Your task to perform on an android device: open app "Expedia: Hotels, Flights & Car" (install if not already installed) Image 0: 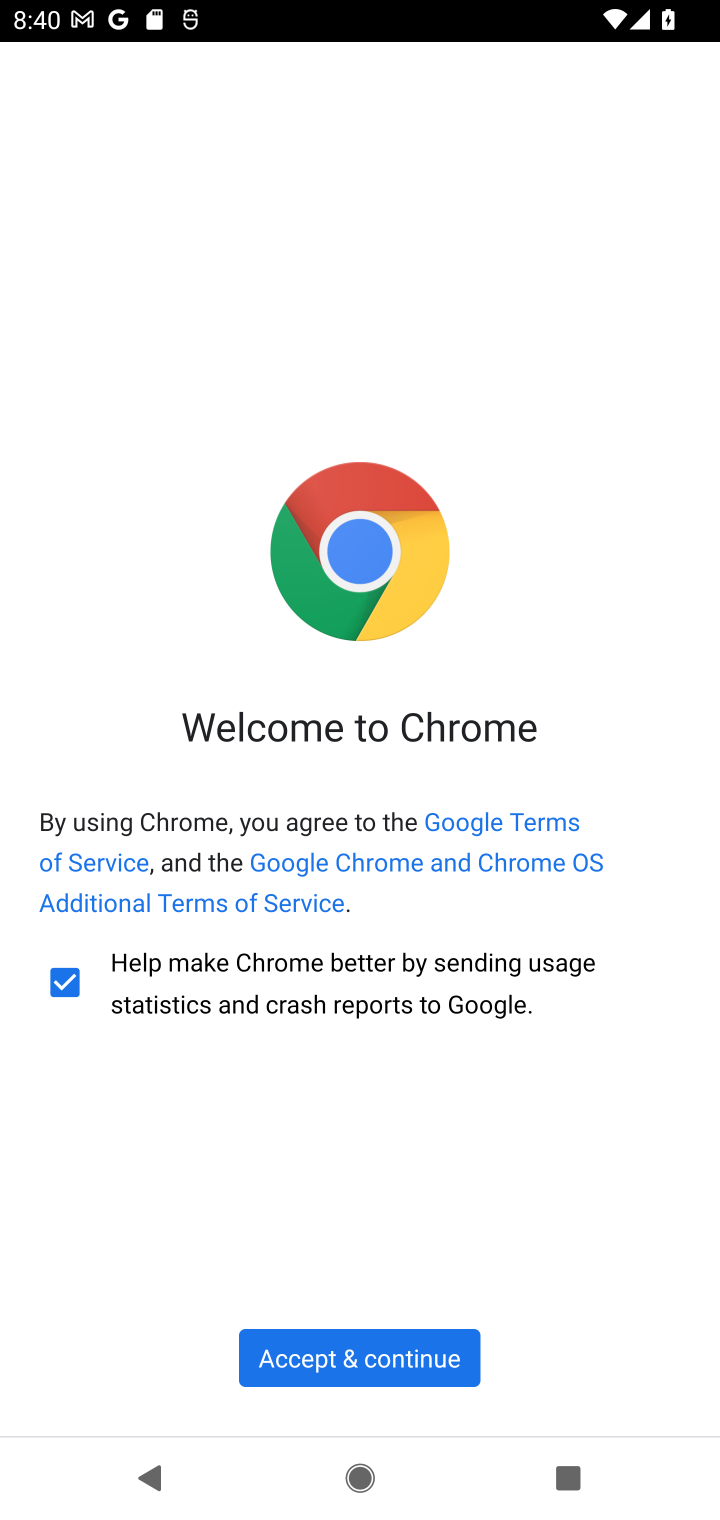
Step 0: press home button
Your task to perform on an android device: open app "Expedia: Hotels, Flights & Car" (install if not already installed) Image 1: 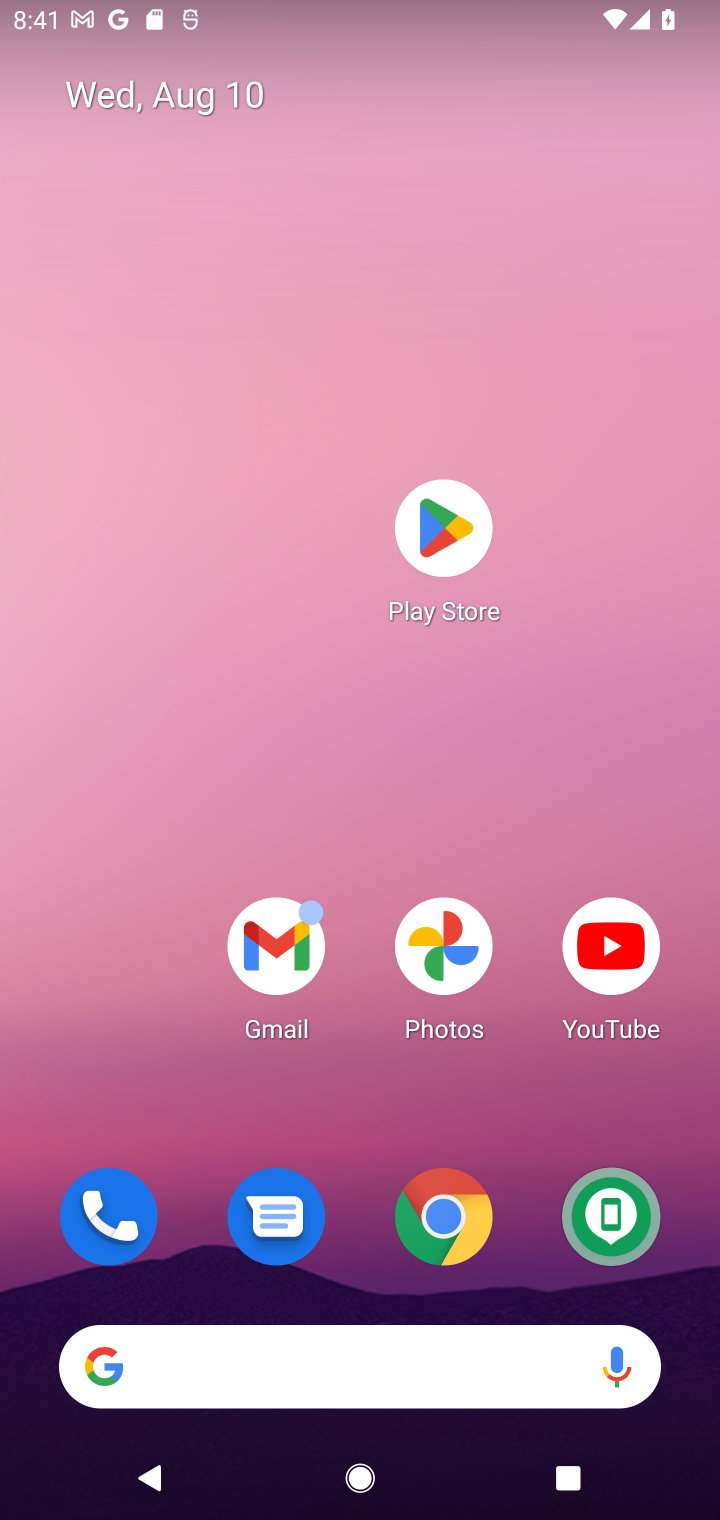
Step 1: click (448, 533)
Your task to perform on an android device: open app "Expedia: Hotels, Flights & Car" (install if not already installed) Image 2: 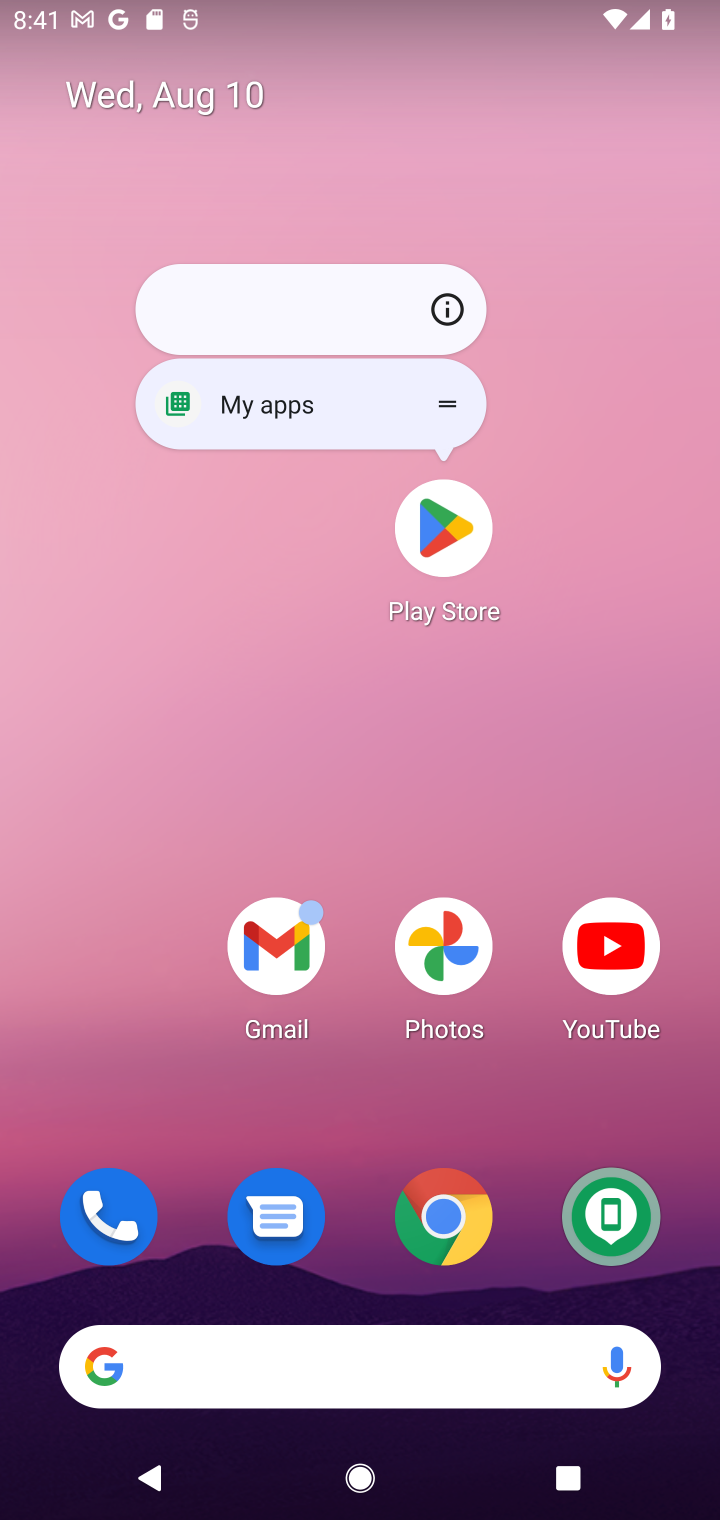
Step 2: click (443, 537)
Your task to perform on an android device: open app "Expedia: Hotels, Flights & Car" (install if not already installed) Image 3: 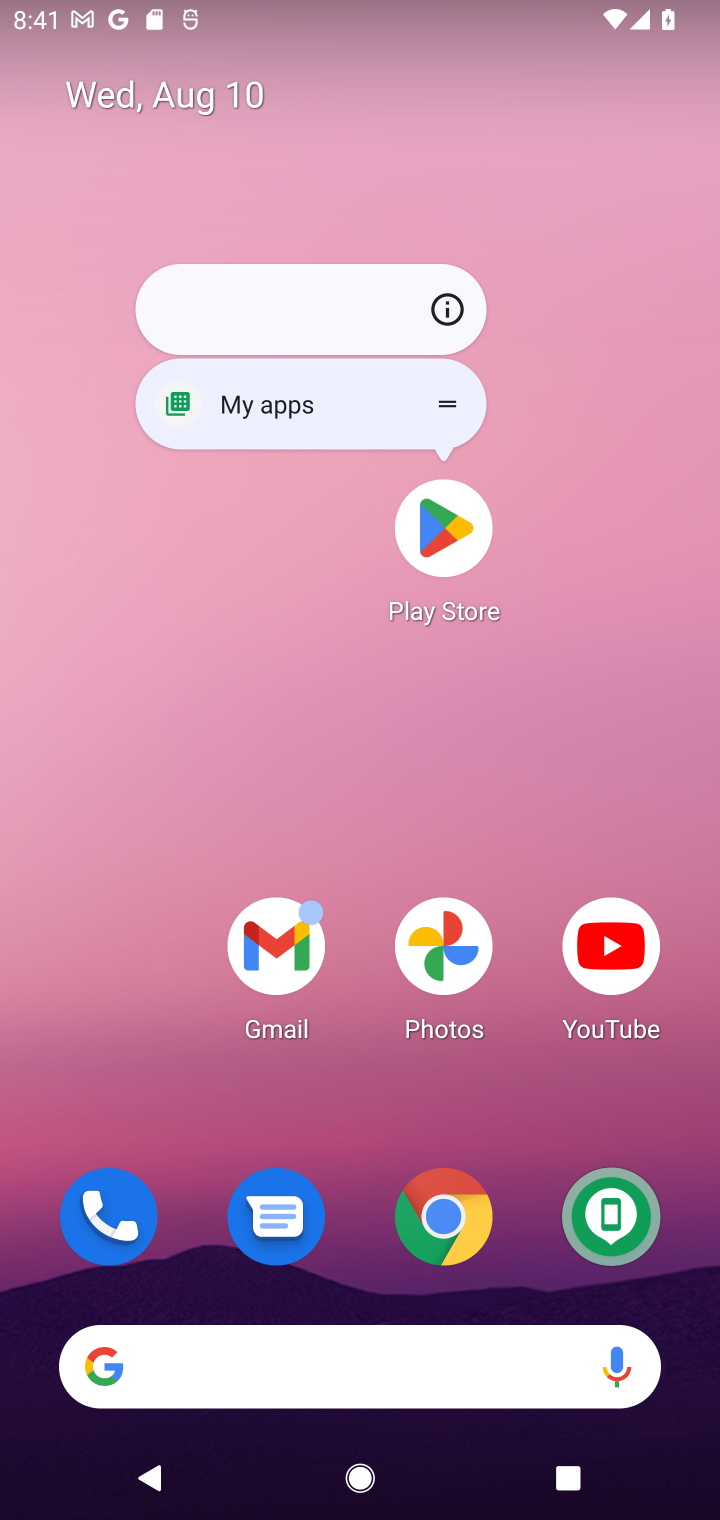
Step 3: click (443, 540)
Your task to perform on an android device: open app "Expedia: Hotels, Flights & Car" (install if not already installed) Image 4: 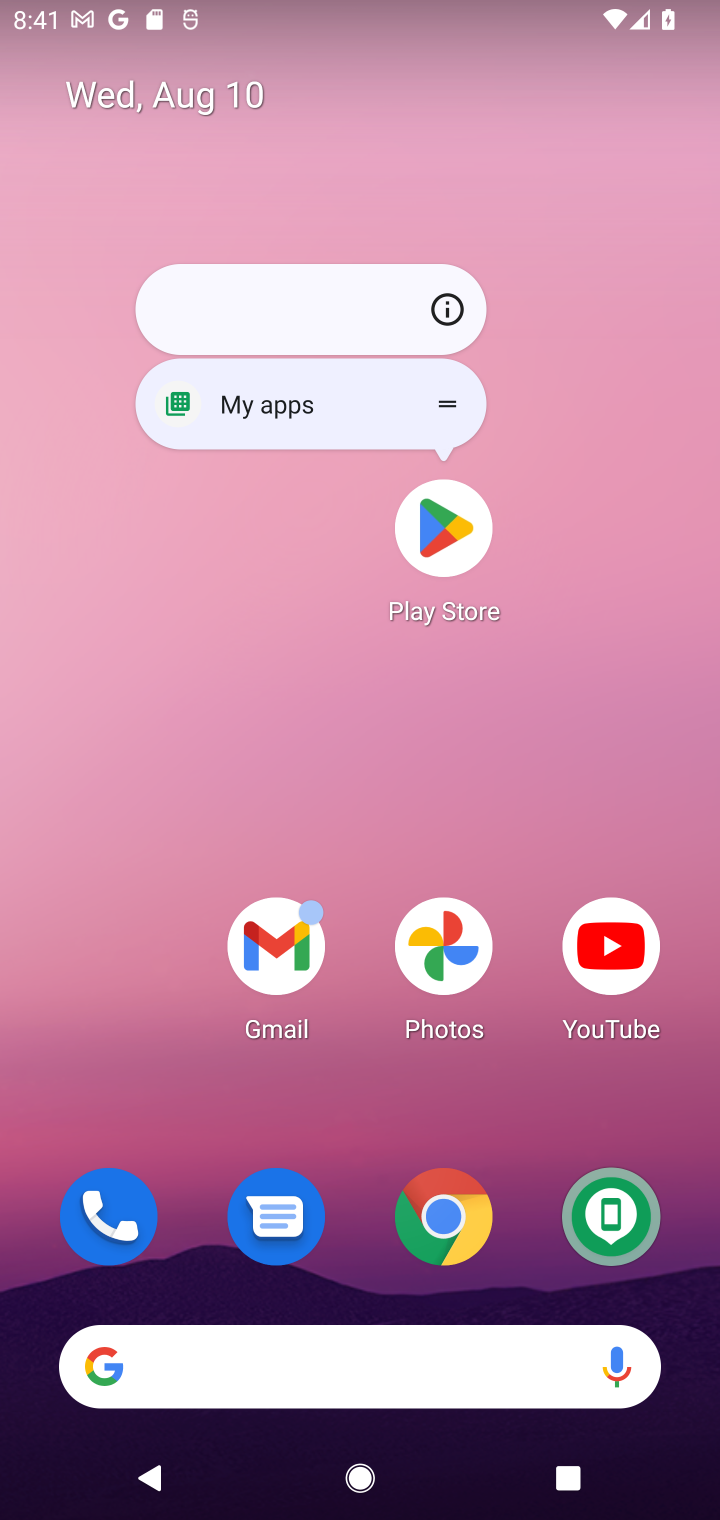
Step 4: click (443, 537)
Your task to perform on an android device: open app "Expedia: Hotels, Flights & Car" (install if not already installed) Image 5: 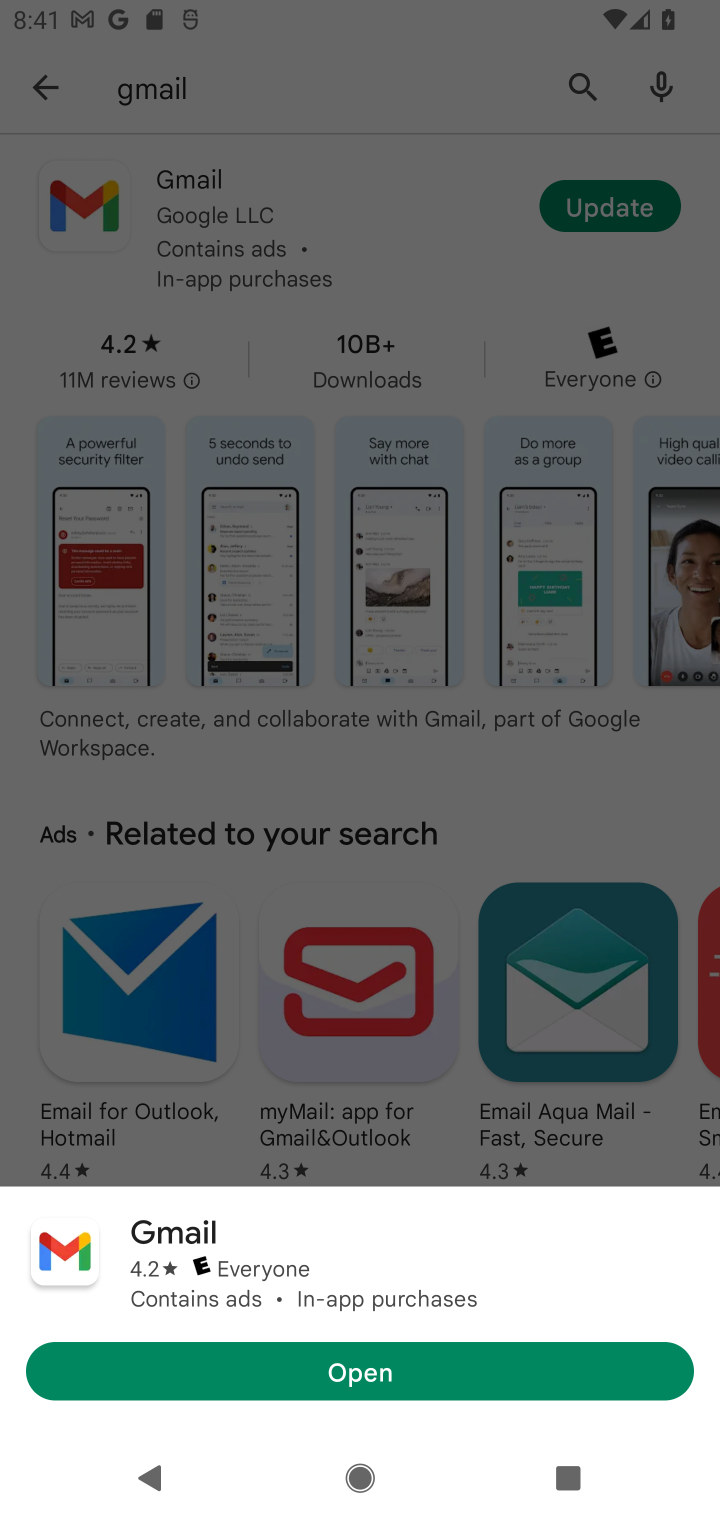
Step 5: click (571, 90)
Your task to perform on an android device: open app "Expedia: Hotels, Flights & Car" (install if not already installed) Image 6: 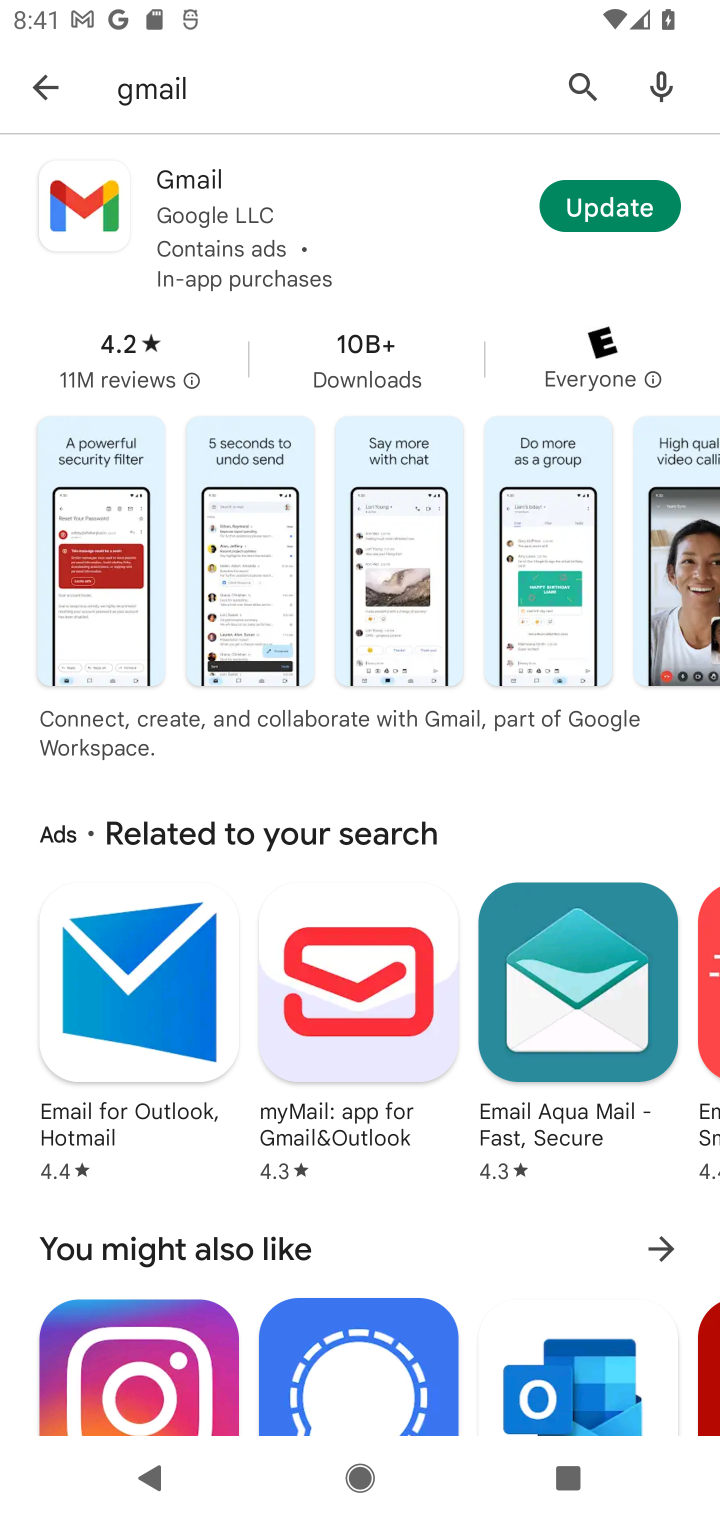
Step 6: click (584, 84)
Your task to perform on an android device: open app "Expedia: Hotels, Flights & Car" (install if not already installed) Image 7: 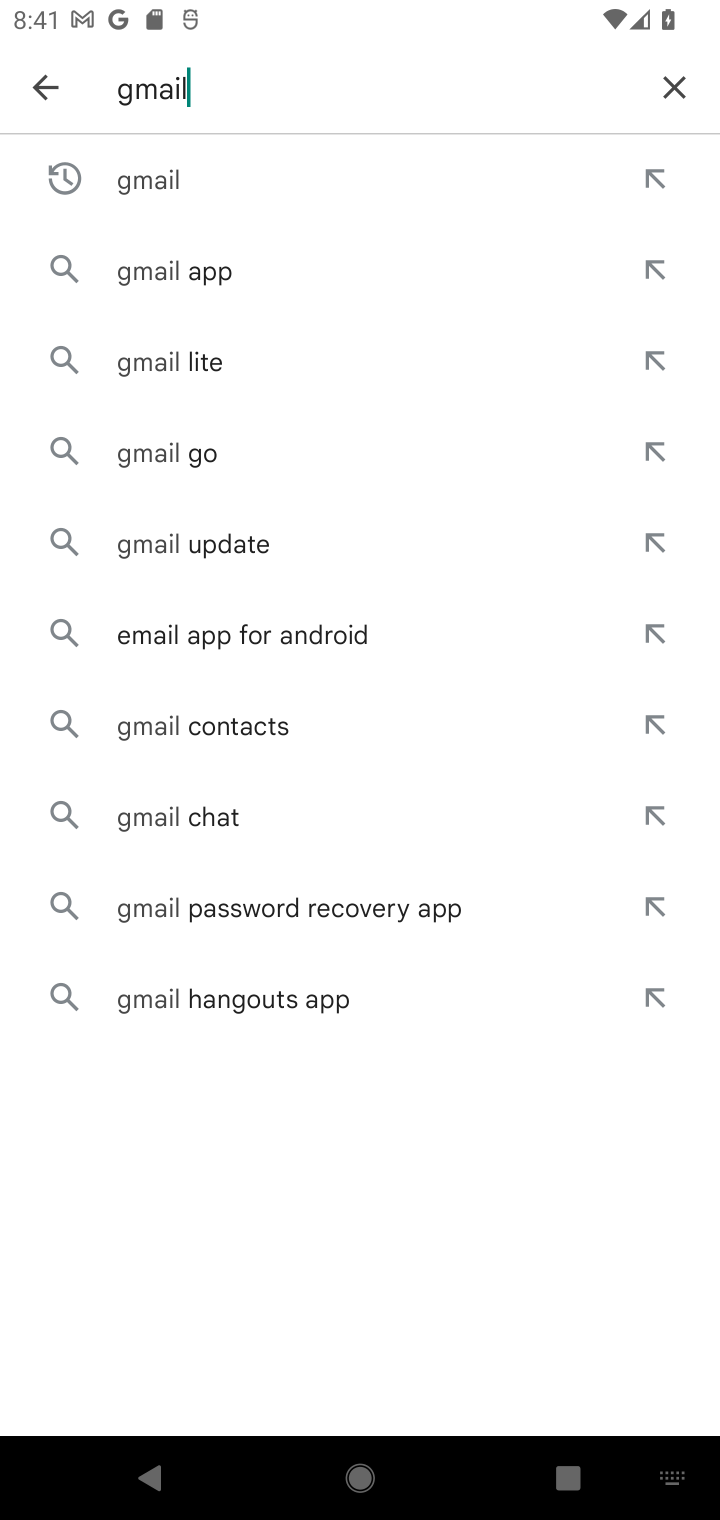
Step 7: click (663, 91)
Your task to perform on an android device: open app "Expedia: Hotels, Flights & Car" (install if not already installed) Image 8: 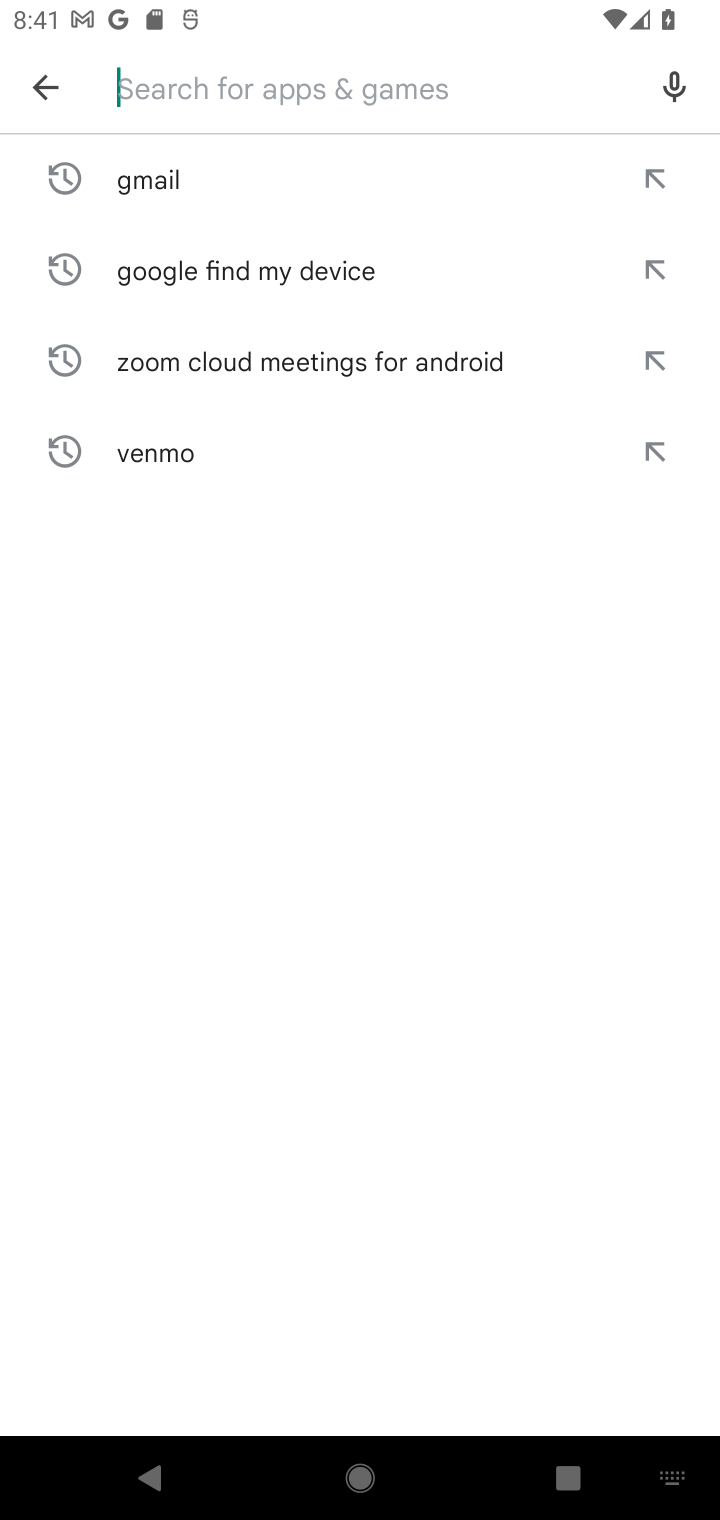
Step 8: type "Expedia: Hotels, Flights & Car"
Your task to perform on an android device: open app "Expedia: Hotels, Flights & Car" (install if not already installed) Image 9: 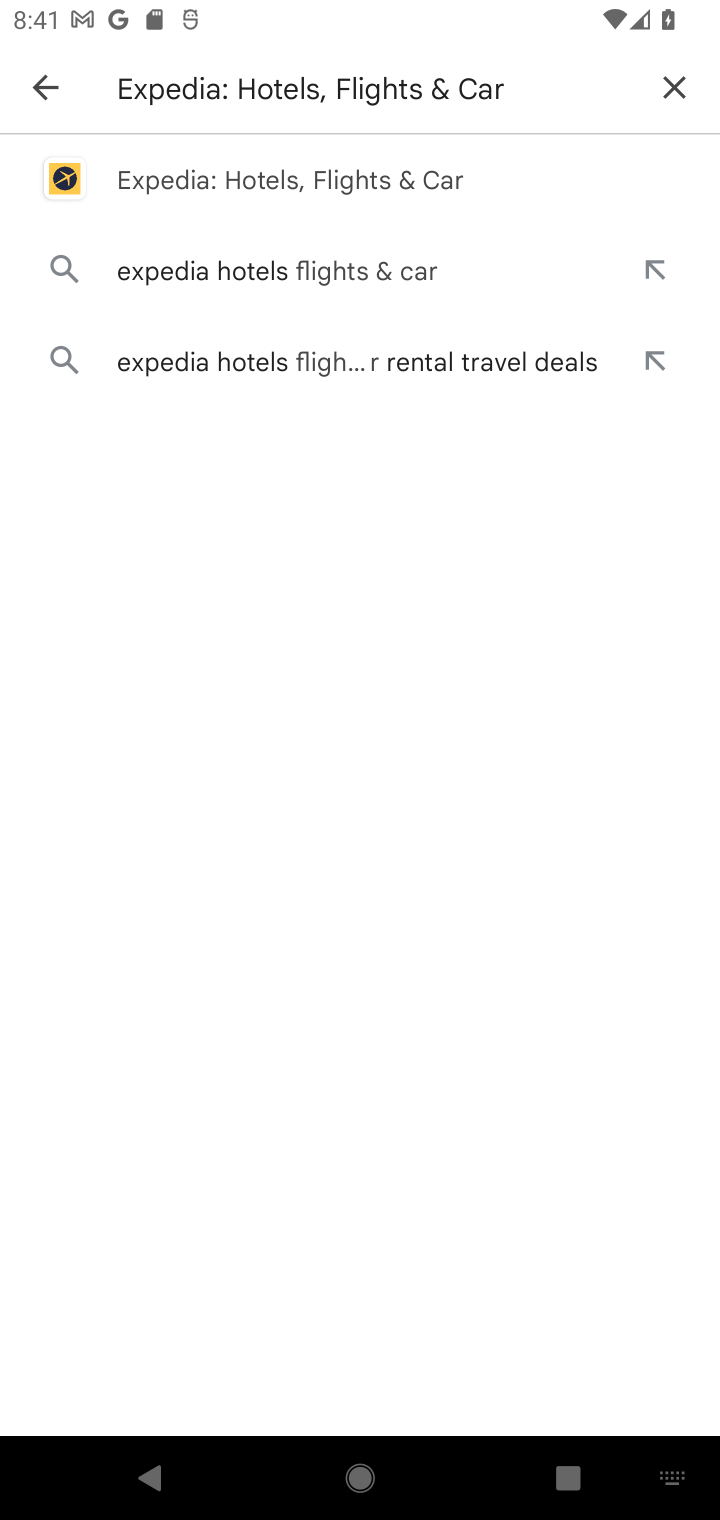
Step 9: click (287, 178)
Your task to perform on an android device: open app "Expedia: Hotels, Flights & Car" (install if not already installed) Image 10: 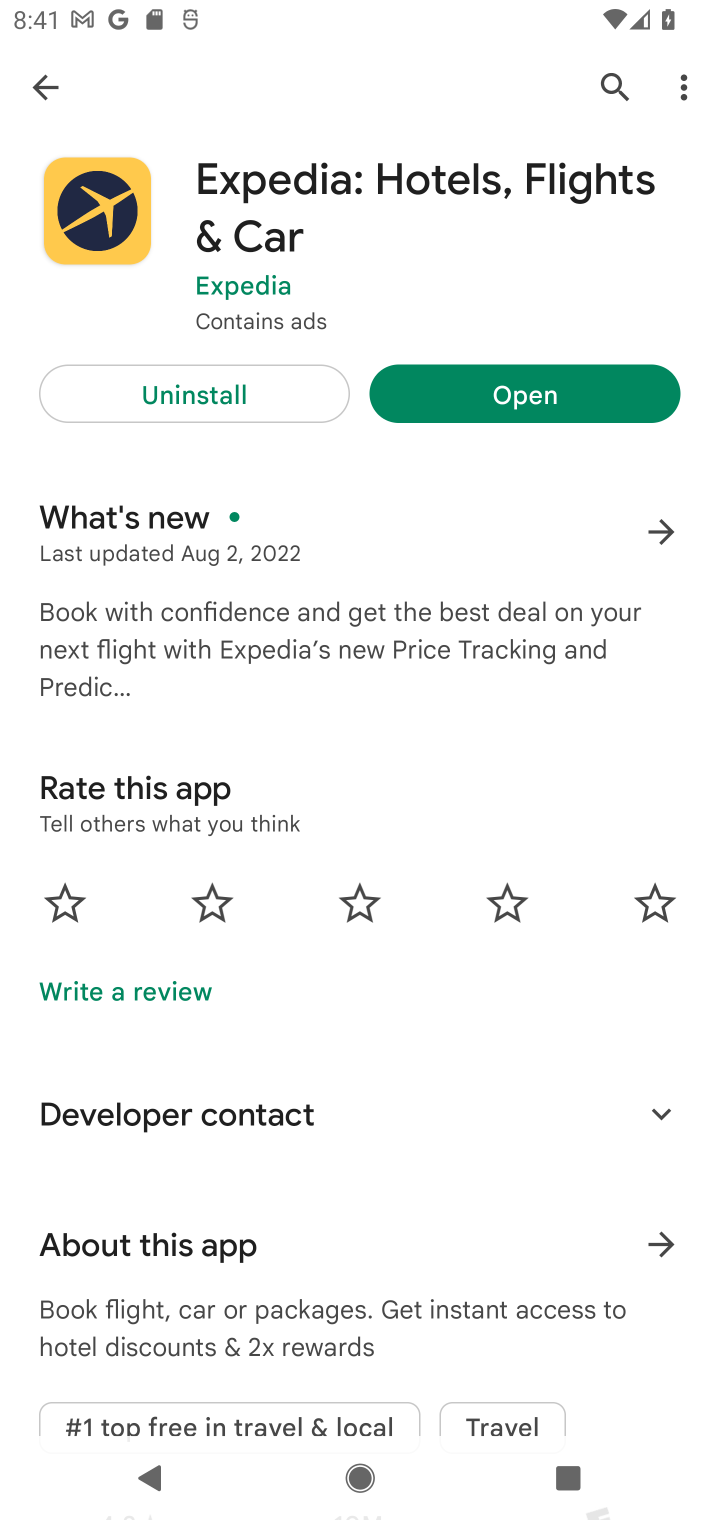
Step 10: click (573, 393)
Your task to perform on an android device: open app "Expedia: Hotels, Flights & Car" (install if not already installed) Image 11: 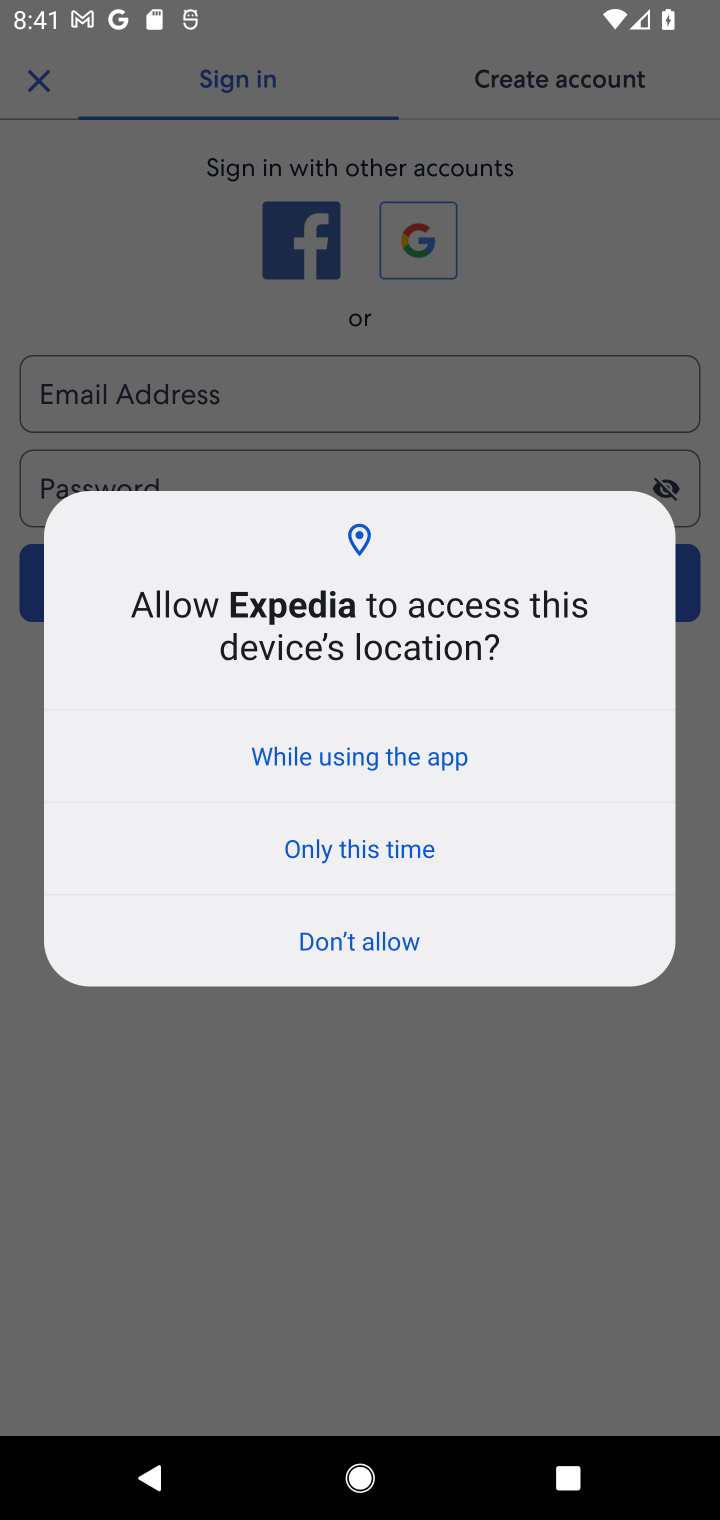
Step 11: task complete